Your task to perform on an android device: show emergency info Image 0: 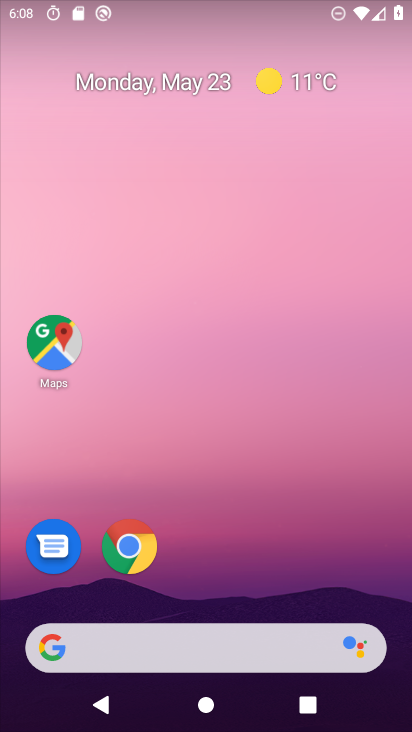
Step 0: drag from (234, 597) to (234, 188)
Your task to perform on an android device: show emergency info Image 1: 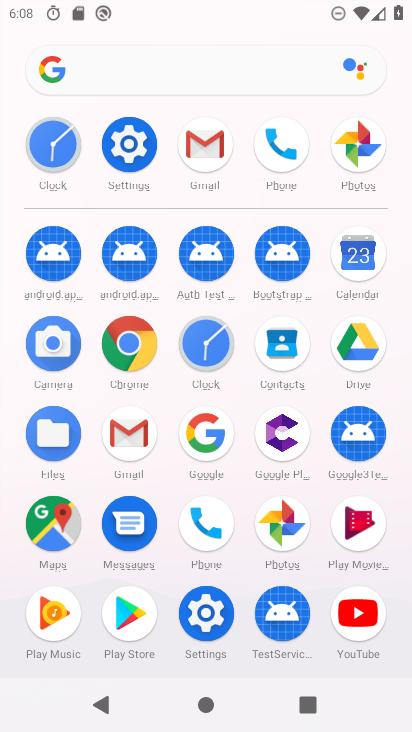
Step 1: click (206, 593)
Your task to perform on an android device: show emergency info Image 2: 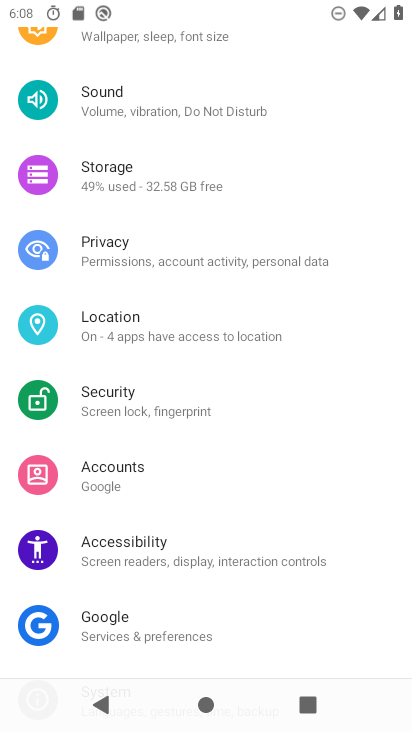
Step 2: drag from (284, 594) to (263, 286)
Your task to perform on an android device: show emergency info Image 3: 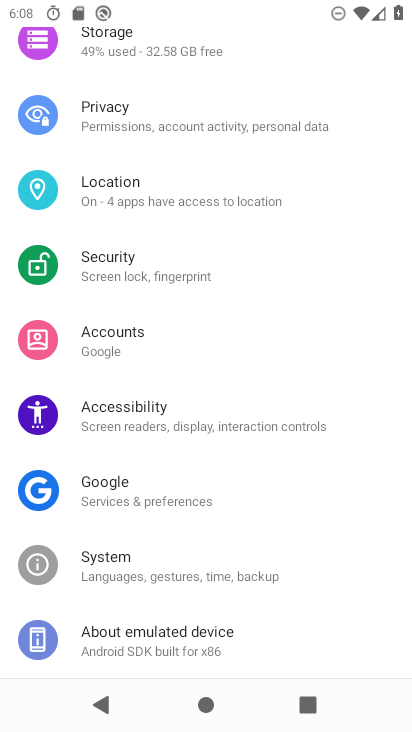
Step 3: click (188, 632)
Your task to perform on an android device: show emergency info Image 4: 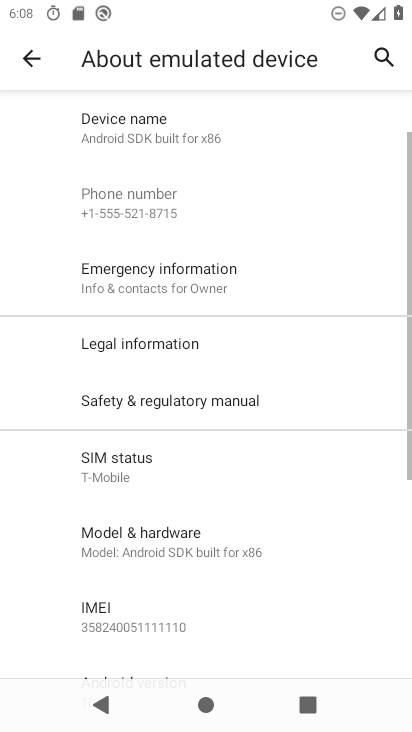
Step 4: drag from (220, 607) to (240, 200)
Your task to perform on an android device: show emergency info Image 5: 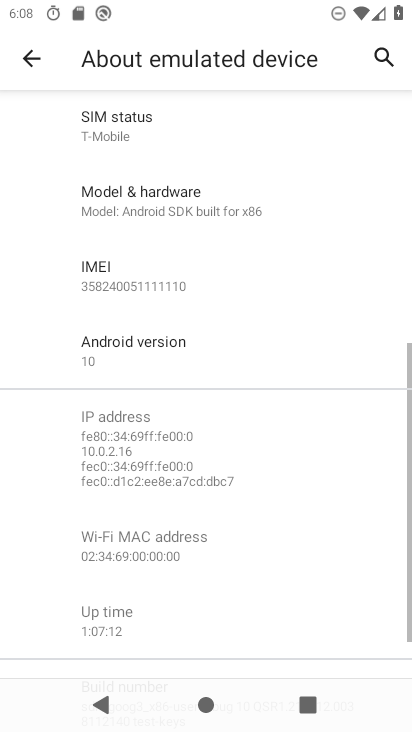
Step 5: drag from (198, 530) to (216, 194)
Your task to perform on an android device: show emergency info Image 6: 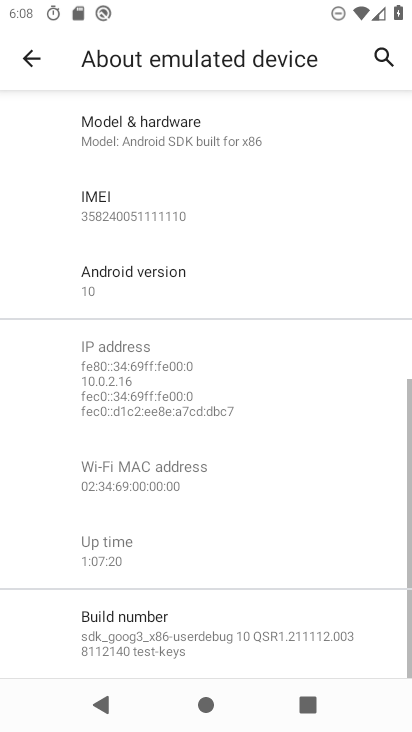
Step 6: drag from (237, 591) to (234, 287)
Your task to perform on an android device: show emergency info Image 7: 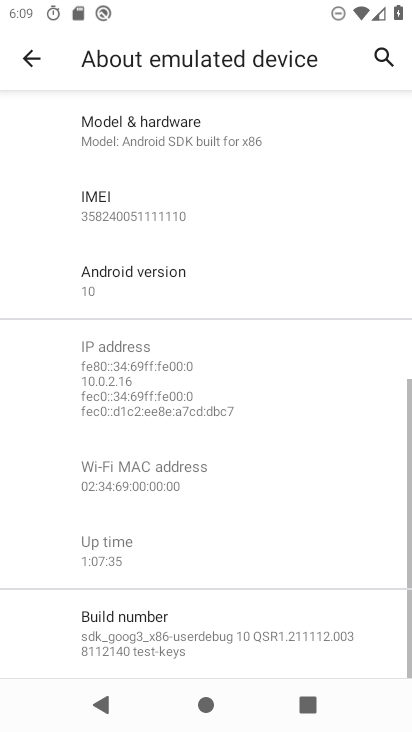
Step 7: drag from (254, 268) to (177, 671)
Your task to perform on an android device: show emergency info Image 8: 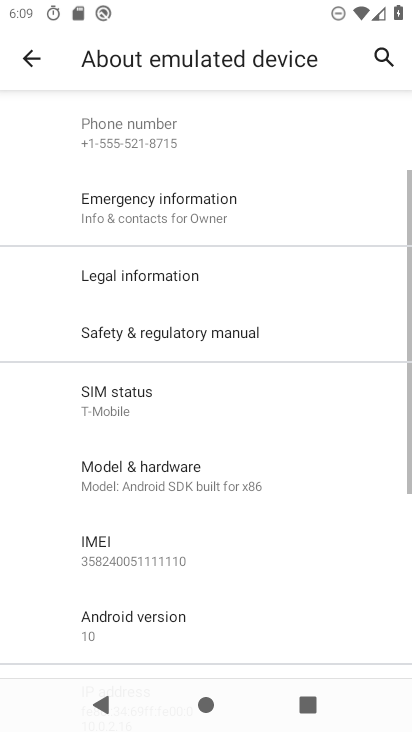
Step 8: click (200, 198)
Your task to perform on an android device: show emergency info Image 9: 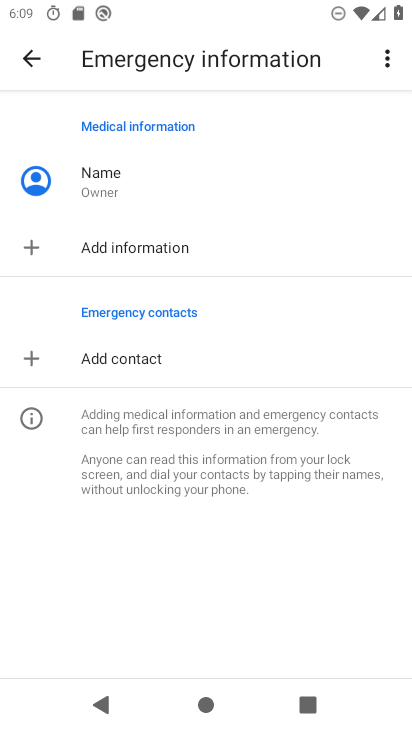
Step 9: task complete